Your task to perform on an android device: move a message to another label in the gmail app Image 0: 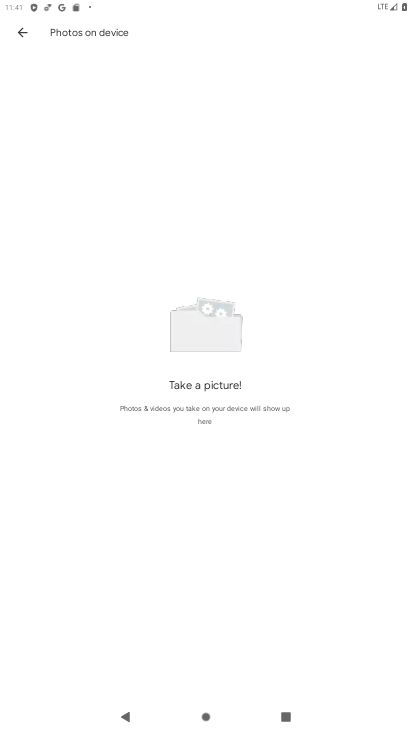
Step 0: press home button
Your task to perform on an android device: move a message to another label in the gmail app Image 1: 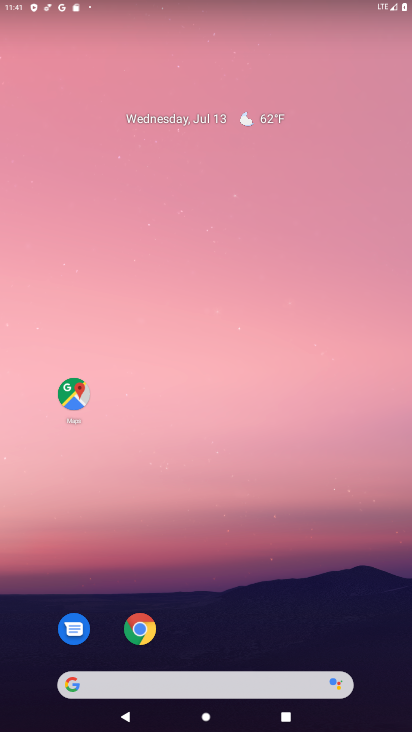
Step 1: drag from (198, 651) to (167, 230)
Your task to perform on an android device: move a message to another label in the gmail app Image 2: 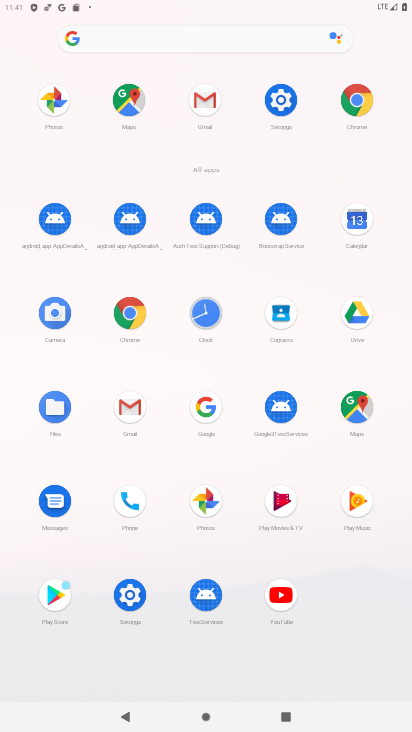
Step 2: click (212, 94)
Your task to perform on an android device: move a message to another label in the gmail app Image 3: 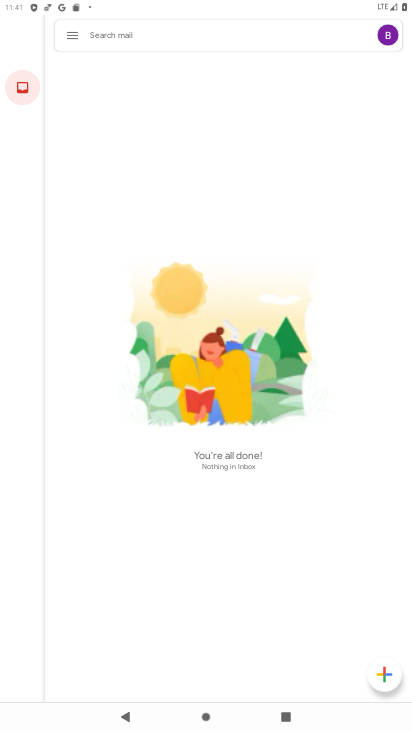
Step 3: task complete